Your task to perform on an android device: Open internet settings Image 0: 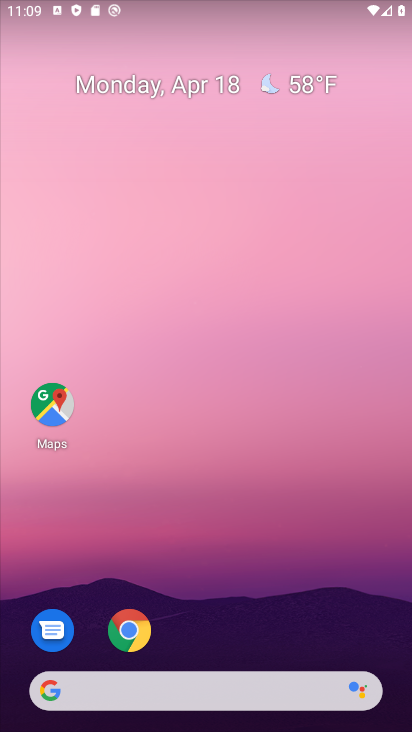
Step 0: drag from (233, 650) to (214, 200)
Your task to perform on an android device: Open internet settings Image 1: 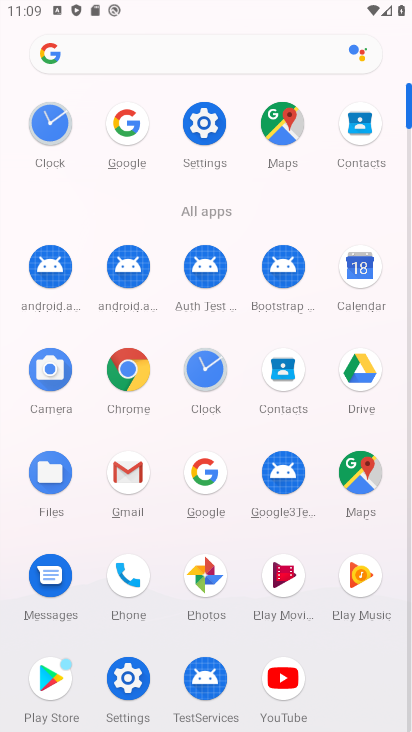
Step 1: click (206, 124)
Your task to perform on an android device: Open internet settings Image 2: 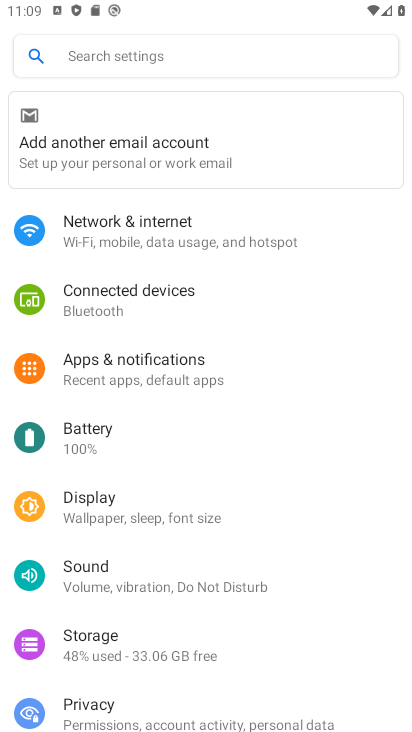
Step 2: click (216, 224)
Your task to perform on an android device: Open internet settings Image 3: 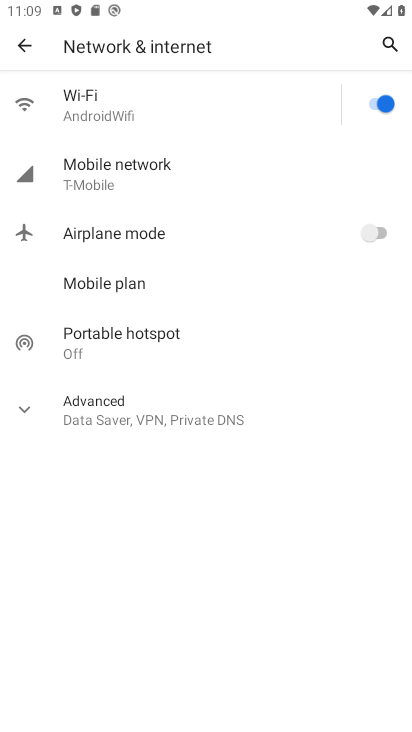
Step 3: click (167, 170)
Your task to perform on an android device: Open internet settings Image 4: 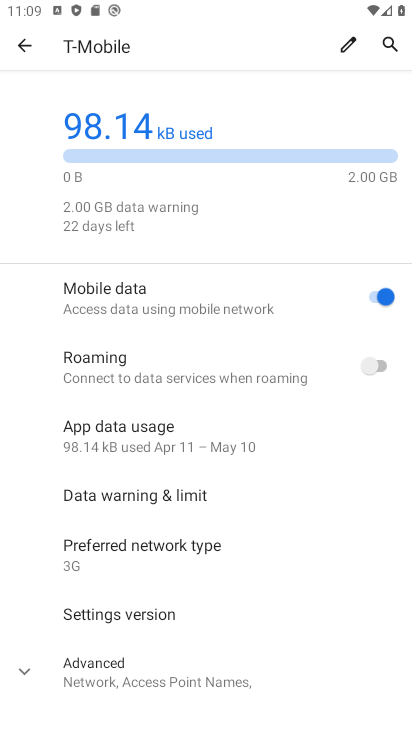
Step 4: task complete